Your task to perform on an android device: Open the phone app and click the voicemail tab. Image 0: 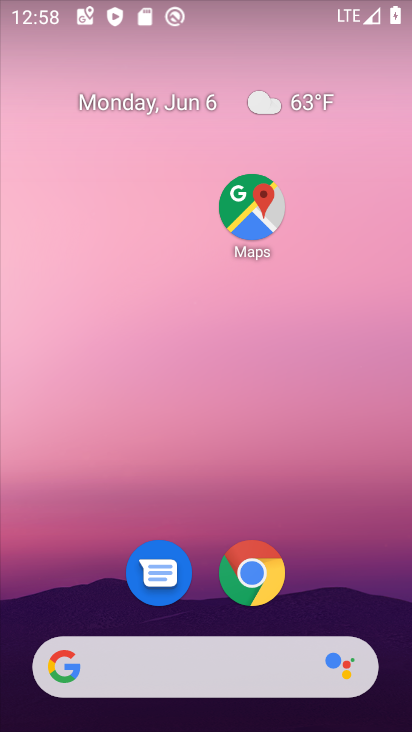
Step 0: drag from (181, 507) to (207, 0)
Your task to perform on an android device: Open the phone app and click the voicemail tab. Image 1: 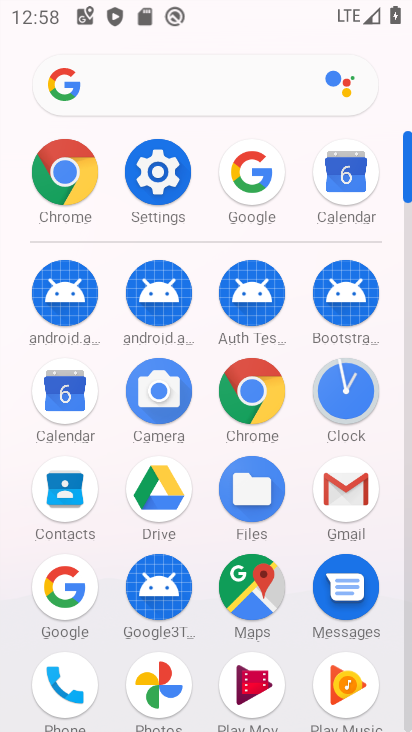
Step 1: drag from (209, 257) to (225, 6)
Your task to perform on an android device: Open the phone app and click the voicemail tab. Image 2: 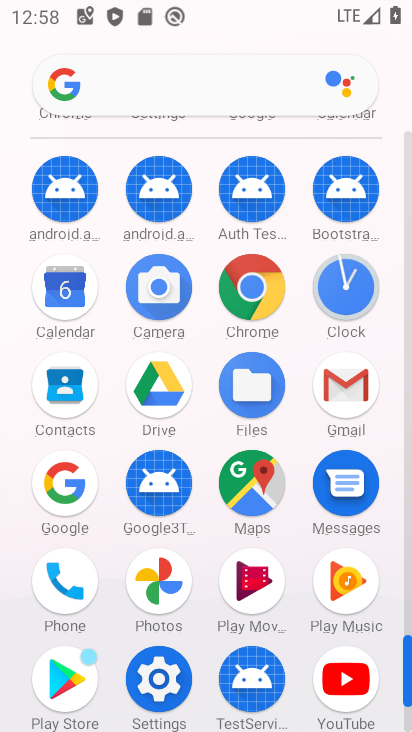
Step 2: click (58, 591)
Your task to perform on an android device: Open the phone app and click the voicemail tab. Image 3: 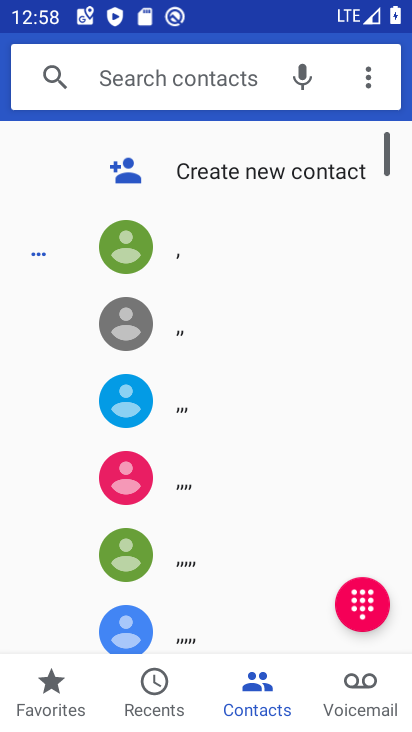
Step 3: click (380, 694)
Your task to perform on an android device: Open the phone app and click the voicemail tab. Image 4: 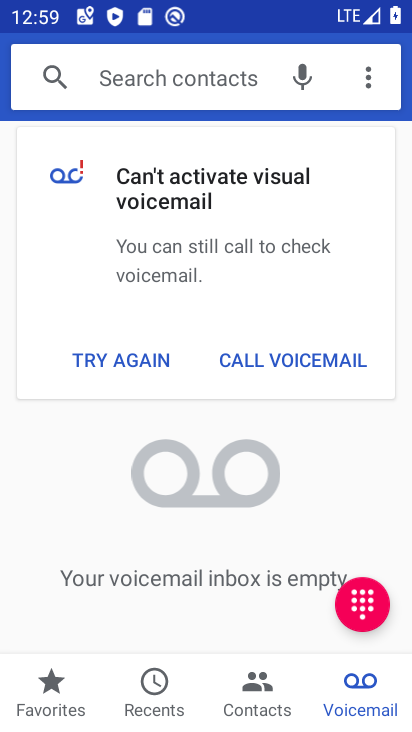
Step 4: task complete